Your task to perform on an android device: turn off data saver in the chrome app Image 0: 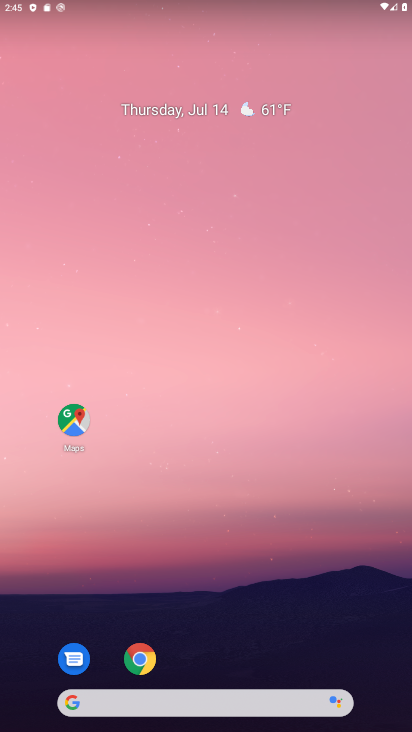
Step 0: click (141, 657)
Your task to perform on an android device: turn off data saver in the chrome app Image 1: 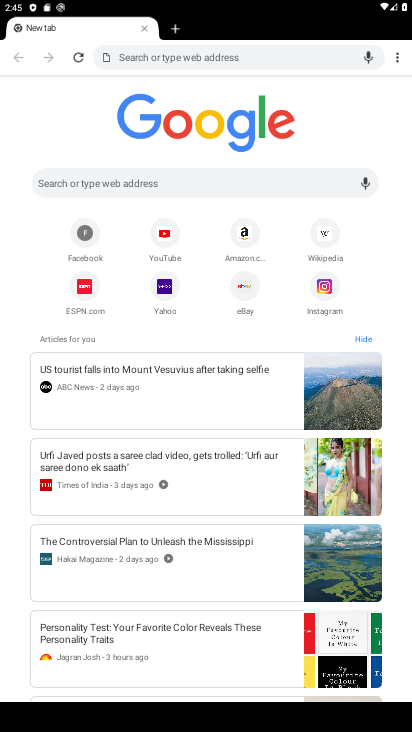
Step 1: click (398, 58)
Your task to perform on an android device: turn off data saver in the chrome app Image 2: 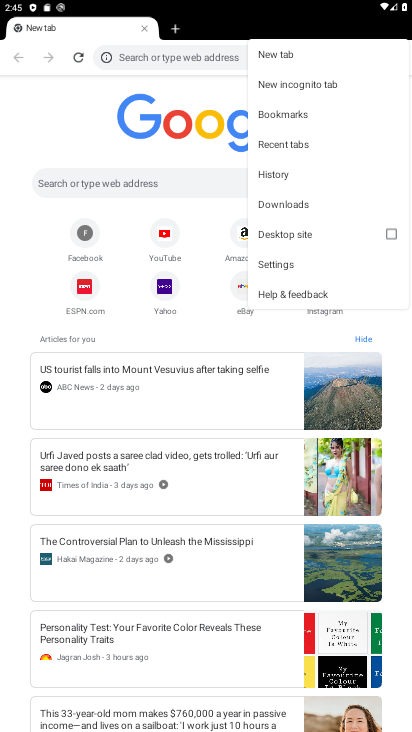
Step 2: click (282, 263)
Your task to perform on an android device: turn off data saver in the chrome app Image 3: 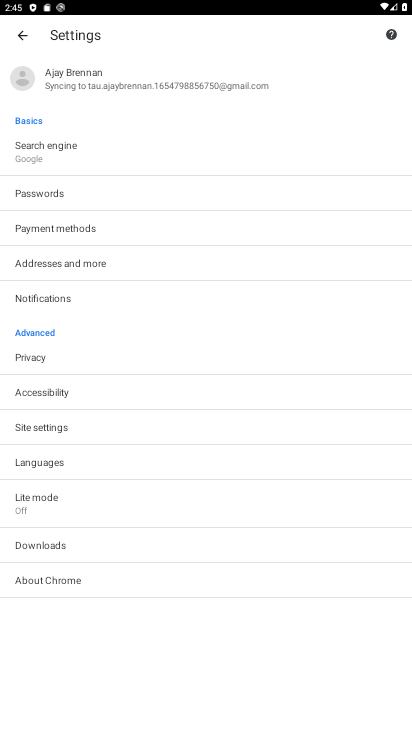
Step 3: click (53, 497)
Your task to perform on an android device: turn off data saver in the chrome app Image 4: 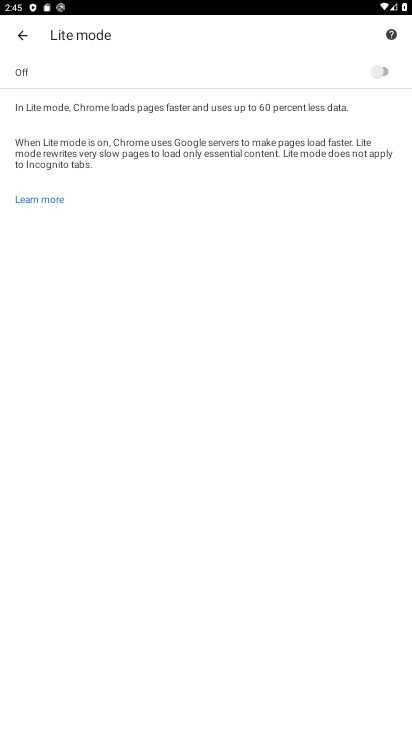
Step 4: task complete